Your task to perform on an android device: Open eBay Image 0: 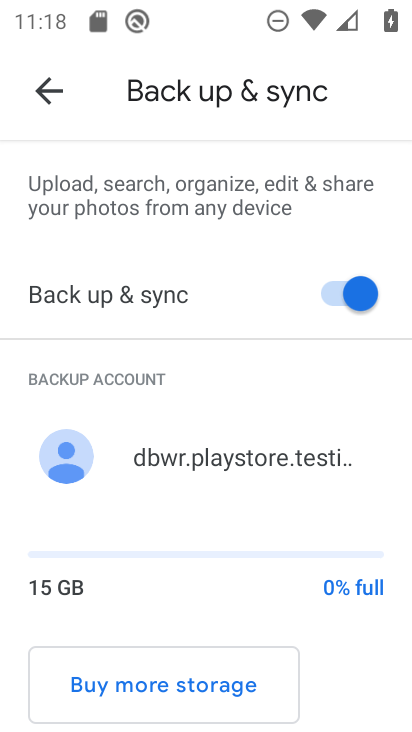
Step 0: press home button
Your task to perform on an android device: Open eBay Image 1: 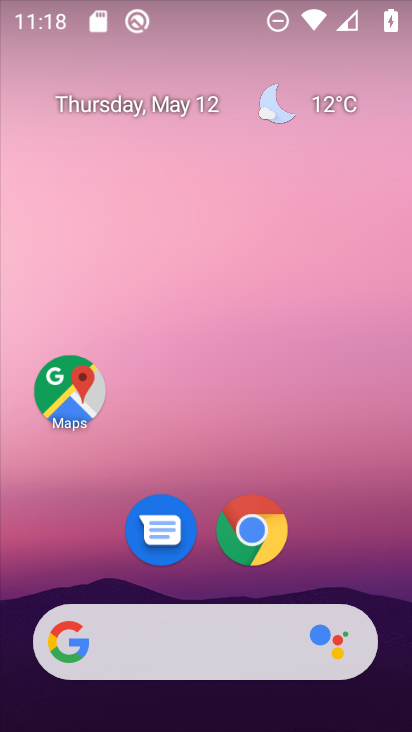
Step 1: click (239, 528)
Your task to perform on an android device: Open eBay Image 2: 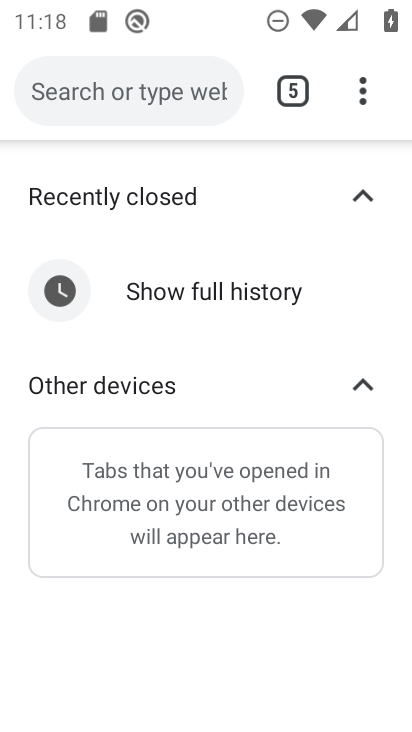
Step 2: drag from (364, 100) to (225, 189)
Your task to perform on an android device: Open eBay Image 3: 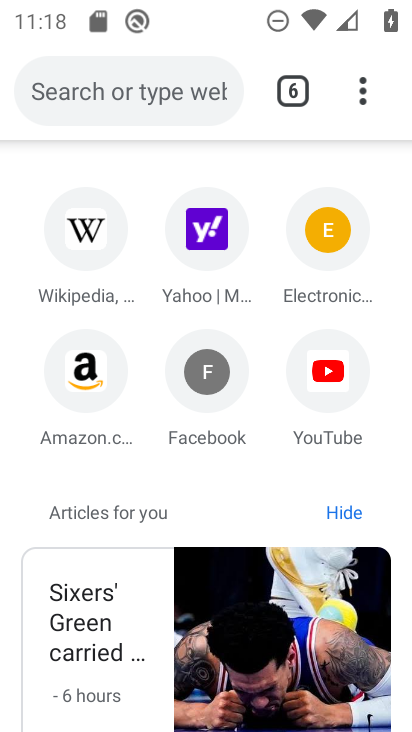
Step 3: click (144, 107)
Your task to perform on an android device: Open eBay Image 4: 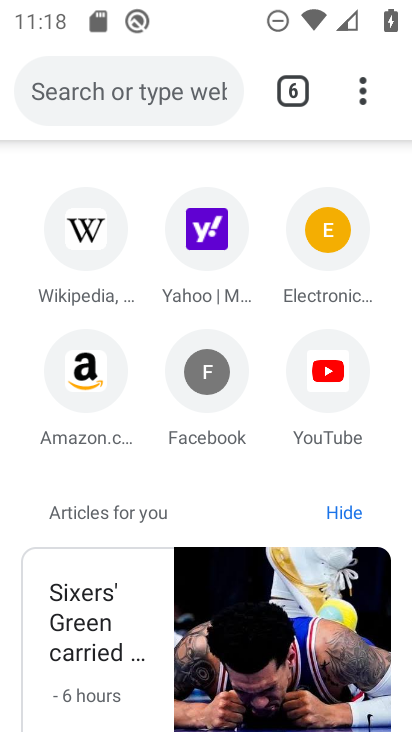
Step 4: click (174, 89)
Your task to perform on an android device: Open eBay Image 5: 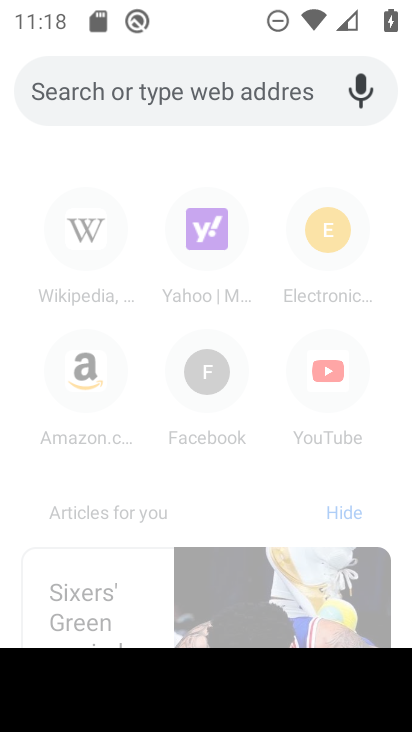
Step 5: type "ebay"
Your task to perform on an android device: Open eBay Image 6: 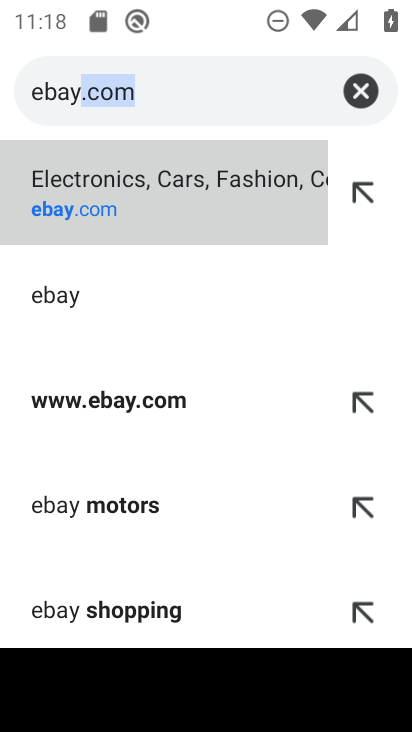
Step 6: click (105, 178)
Your task to perform on an android device: Open eBay Image 7: 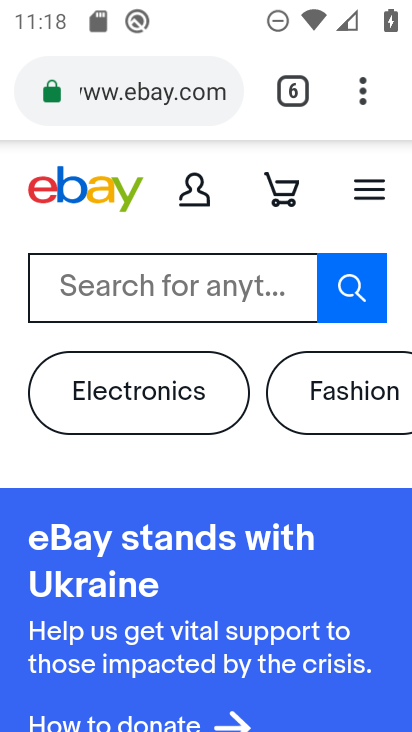
Step 7: task complete